Your task to perform on an android device: turn on translation in the chrome app Image 0: 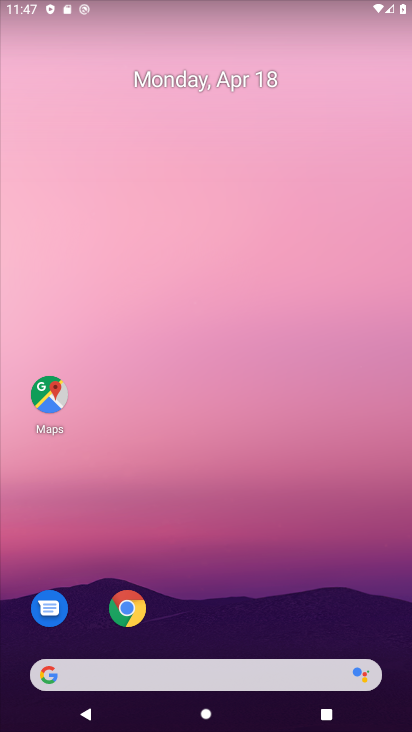
Step 0: click (124, 610)
Your task to perform on an android device: turn on translation in the chrome app Image 1: 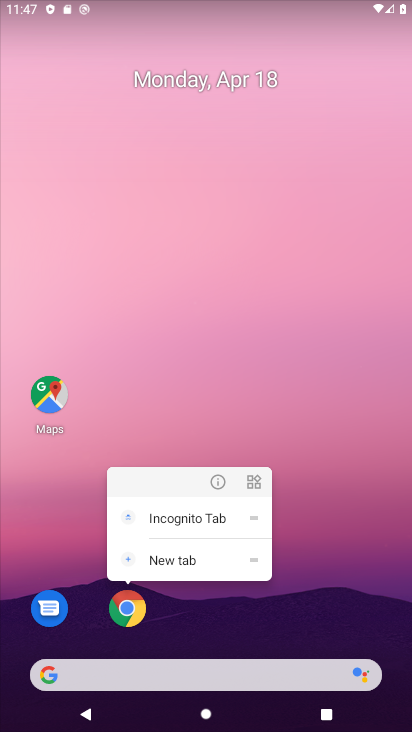
Step 1: click (127, 610)
Your task to perform on an android device: turn on translation in the chrome app Image 2: 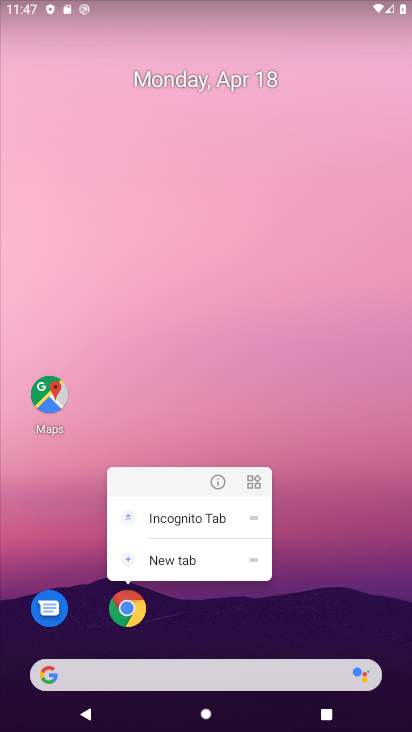
Step 2: click (127, 618)
Your task to perform on an android device: turn on translation in the chrome app Image 3: 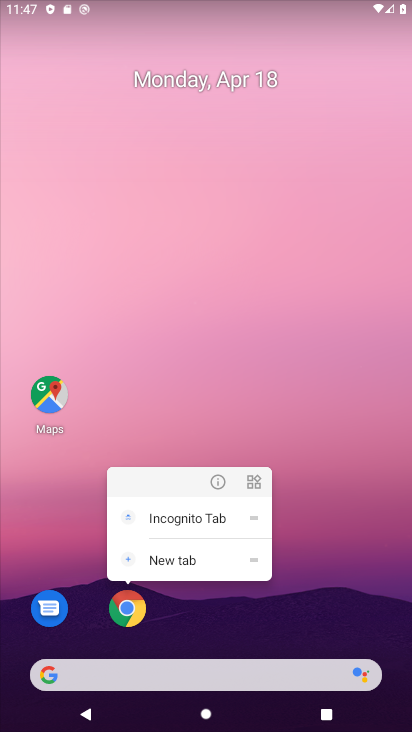
Step 3: click (127, 618)
Your task to perform on an android device: turn on translation in the chrome app Image 4: 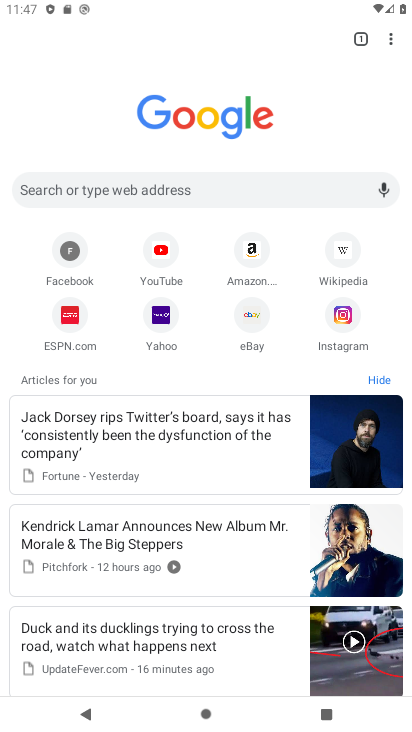
Step 4: click (389, 41)
Your task to perform on an android device: turn on translation in the chrome app Image 5: 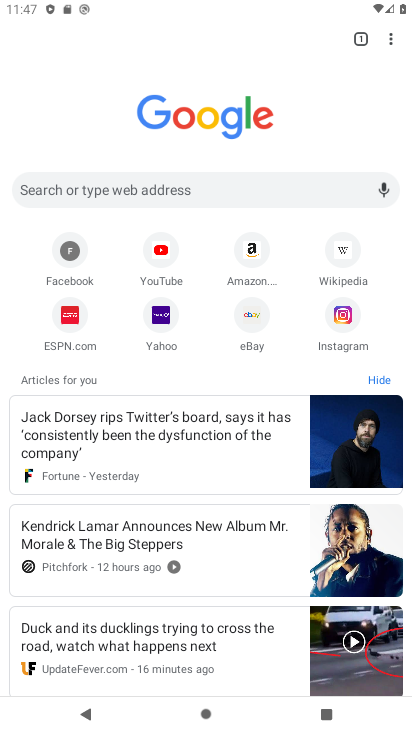
Step 5: drag from (389, 41) to (316, 330)
Your task to perform on an android device: turn on translation in the chrome app Image 6: 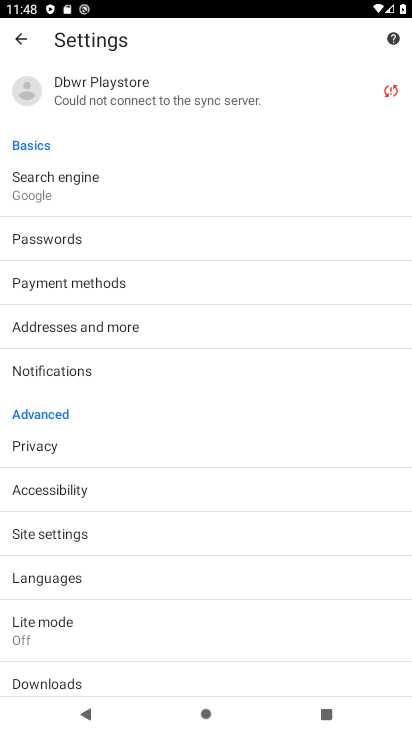
Step 6: drag from (175, 602) to (238, 331)
Your task to perform on an android device: turn on translation in the chrome app Image 7: 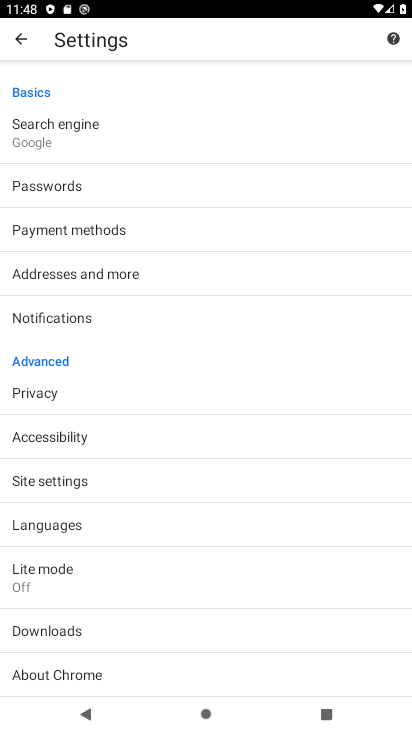
Step 7: click (132, 536)
Your task to perform on an android device: turn on translation in the chrome app Image 8: 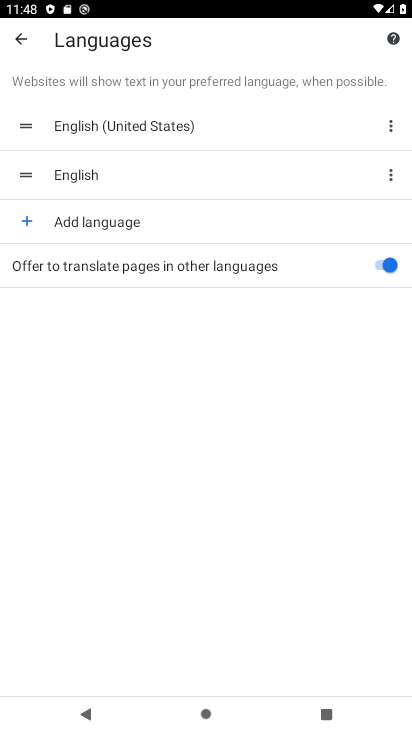
Step 8: task complete